Your task to perform on an android device: toggle airplane mode Image 0: 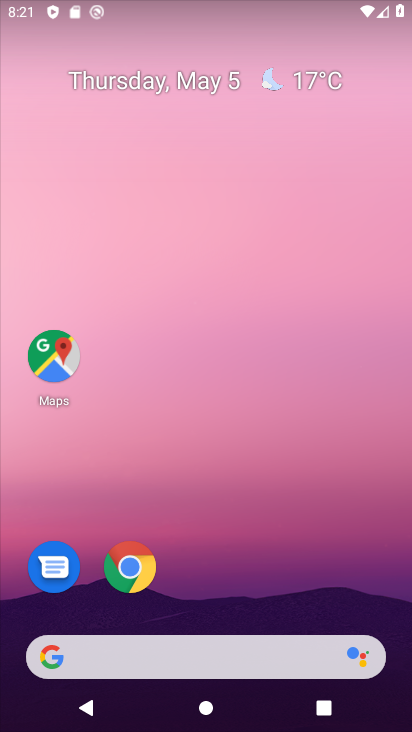
Step 0: drag from (228, 726) to (217, 136)
Your task to perform on an android device: toggle airplane mode Image 1: 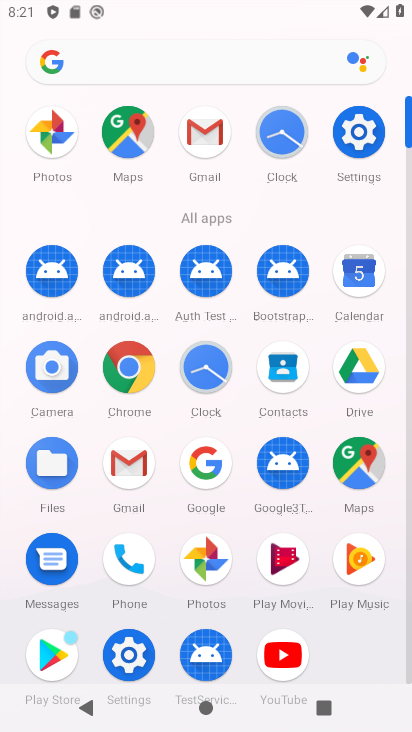
Step 1: click (361, 139)
Your task to perform on an android device: toggle airplane mode Image 2: 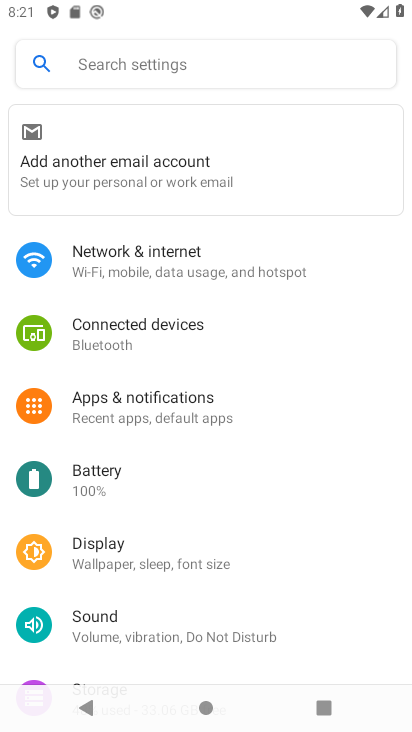
Step 2: click (144, 264)
Your task to perform on an android device: toggle airplane mode Image 3: 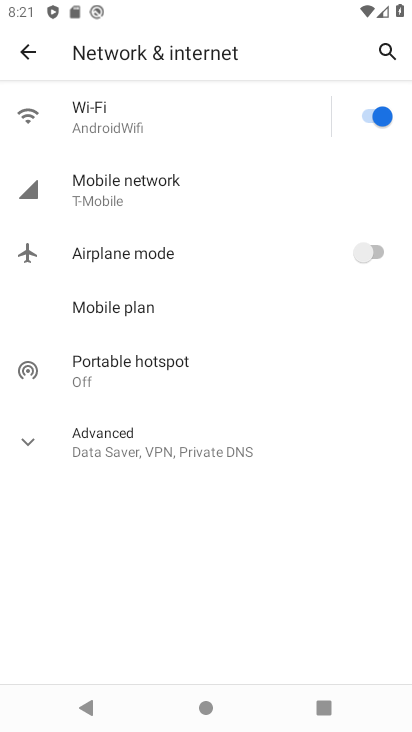
Step 3: click (375, 253)
Your task to perform on an android device: toggle airplane mode Image 4: 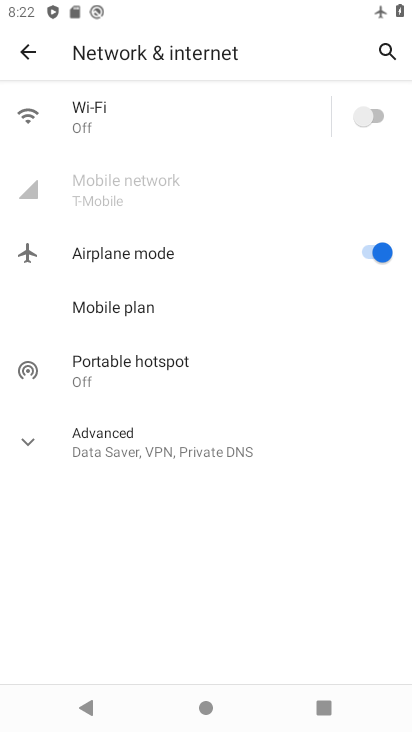
Step 4: task complete